Your task to perform on an android device: toggle location history Image 0: 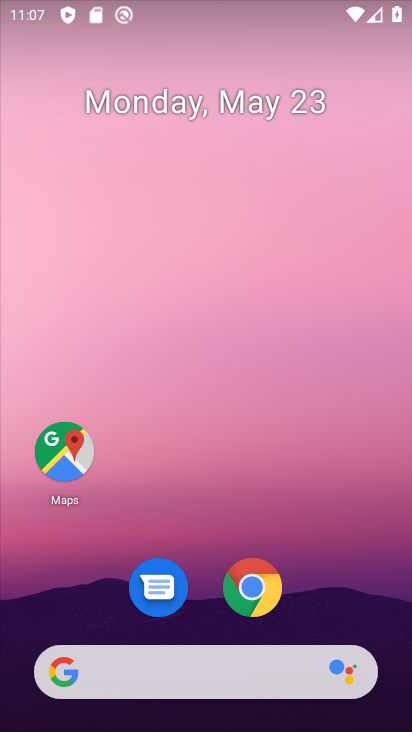
Step 0: click (39, 457)
Your task to perform on an android device: toggle location history Image 1: 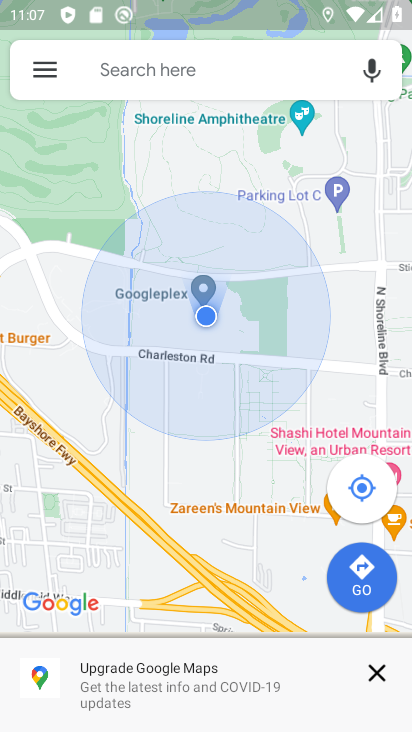
Step 1: click (29, 67)
Your task to perform on an android device: toggle location history Image 2: 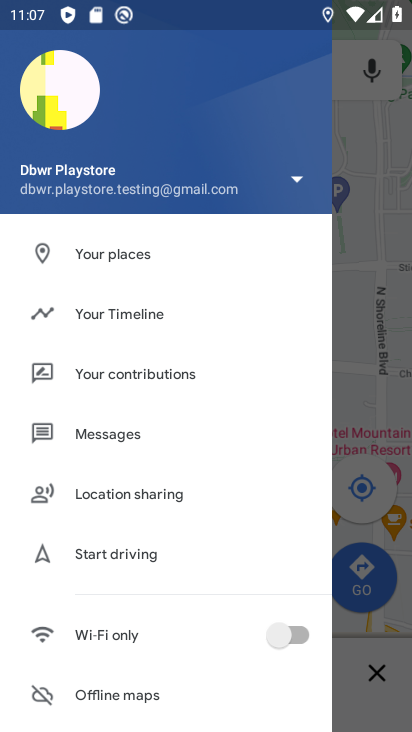
Step 2: click (122, 310)
Your task to perform on an android device: toggle location history Image 3: 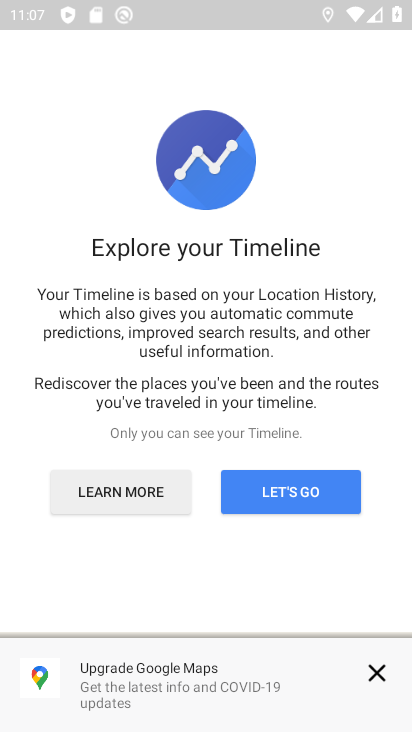
Step 3: click (288, 476)
Your task to perform on an android device: toggle location history Image 4: 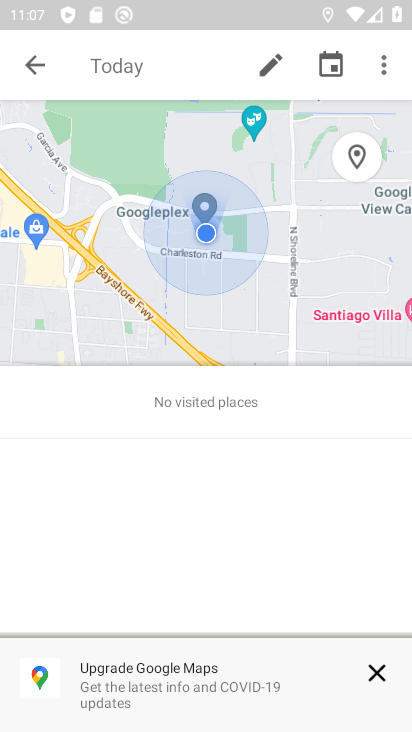
Step 4: click (374, 57)
Your task to perform on an android device: toggle location history Image 5: 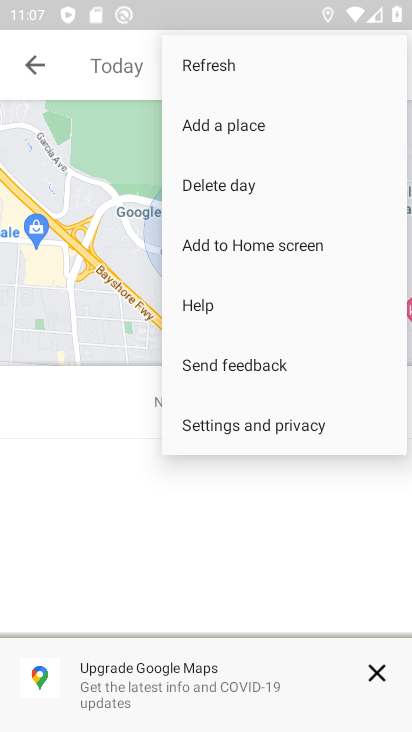
Step 5: click (260, 422)
Your task to perform on an android device: toggle location history Image 6: 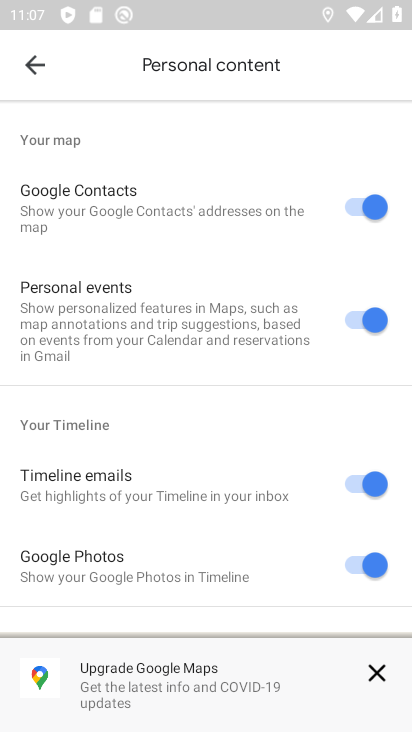
Step 6: drag from (219, 614) to (214, 91)
Your task to perform on an android device: toggle location history Image 7: 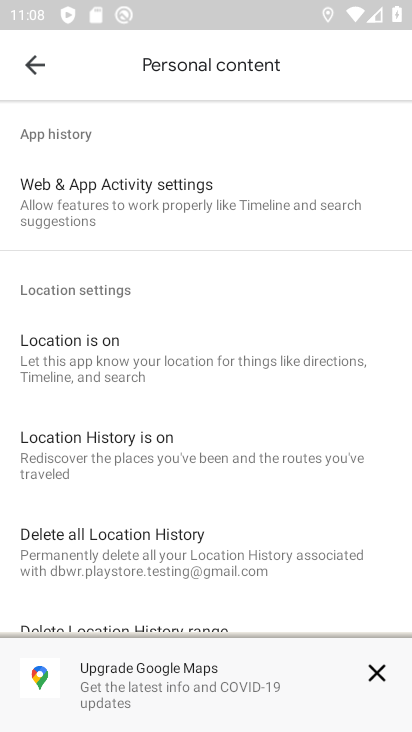
Step 7: click (185, 455)
Your task to perform on an android device: toggle location history Image 8: 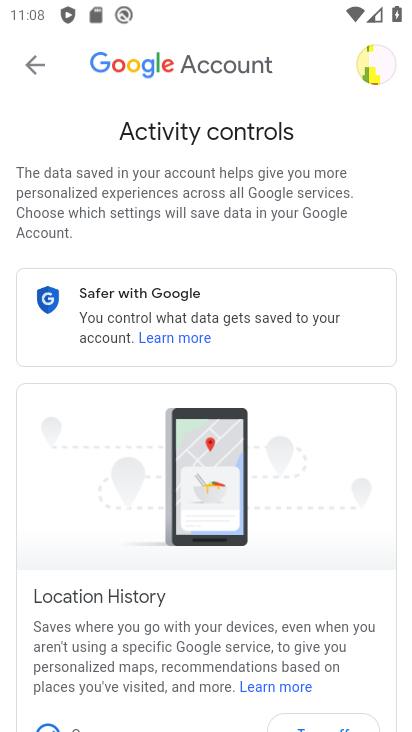
Step 8: drag from (215, 652) to (199, 230)
Your task to perform on an android device: toggle location history Image 9: 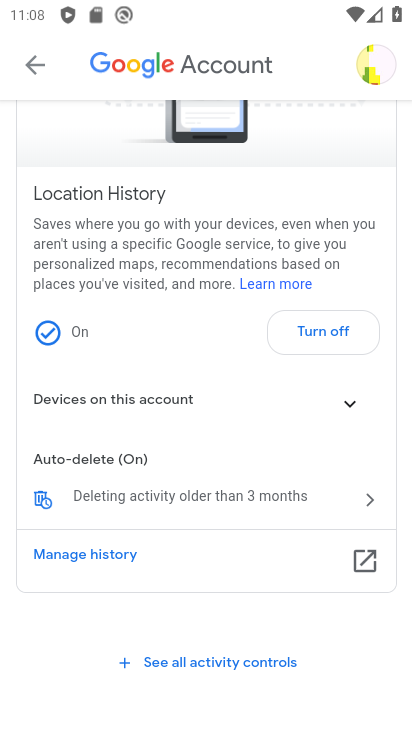
Step 9: click (323, 338)
Your task to perform on an android device: toggle location history Image 10: 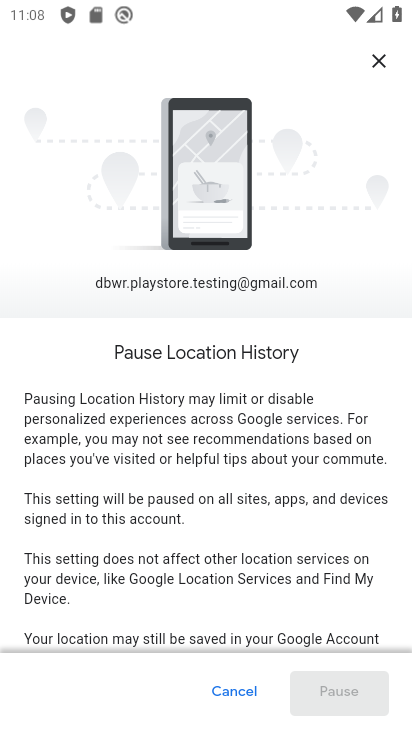
Step 10: drag from (344, 613) to (273, 211)
Your task to perform on an android device: toggle location history Image 11: 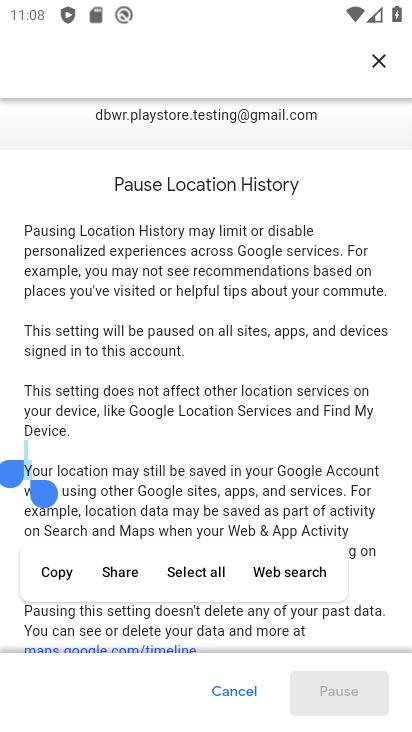
Step 11: click (362, 507)
Your task to perform on an android device: toggle location history Image 12: 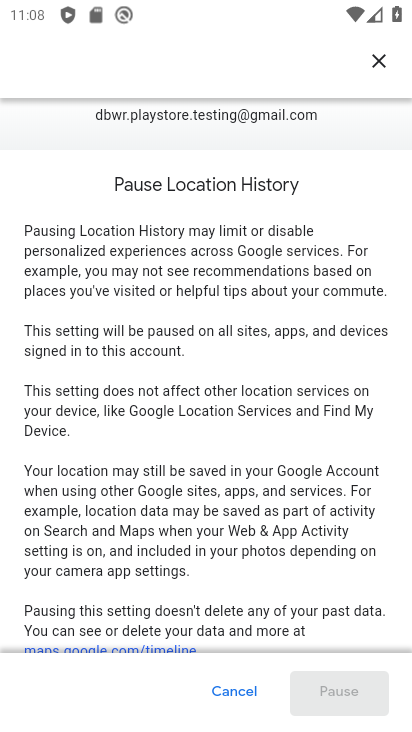
Step 12: drag from (398, 625) to (331, 354)
Your task to perform on an android device: toggle location history Image 13: 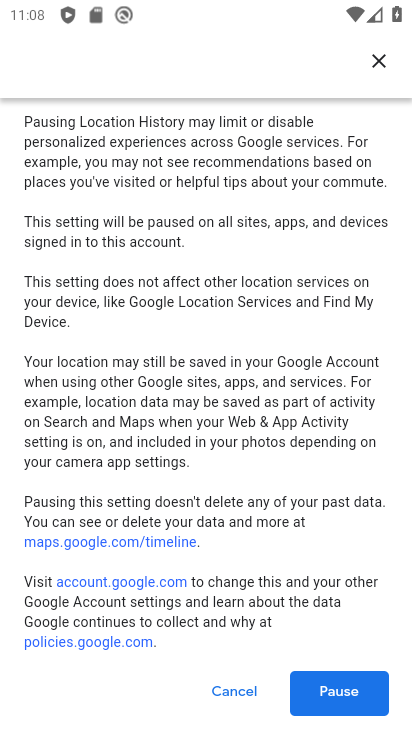
Step 13: click (344, 706)
Your task to perform on an android device: toggle location history Image 14: 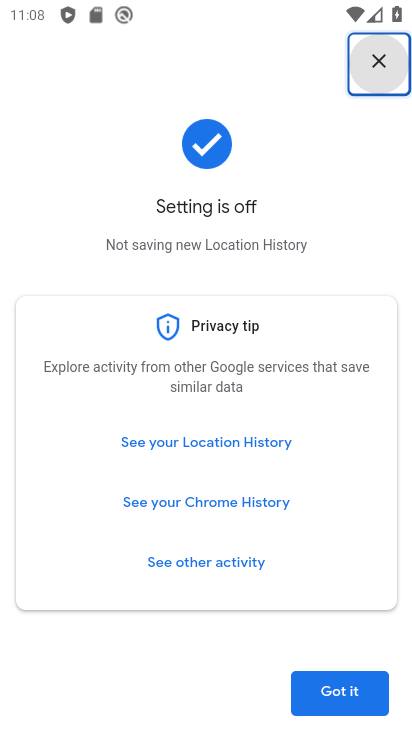
Step 14: click (341, 692)
Your task to perform on an android device: toggle location history Image 15: 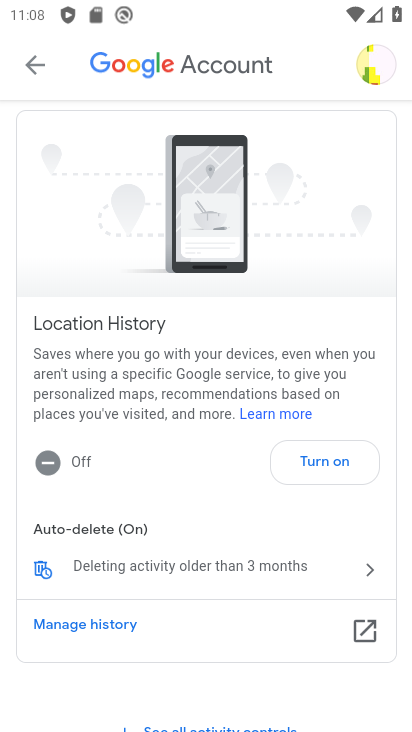
Step 15: task complete